Your task to perform on an android device: open app "PlayWell" (install if not already installed), go to login, and select forgot password Image 0: 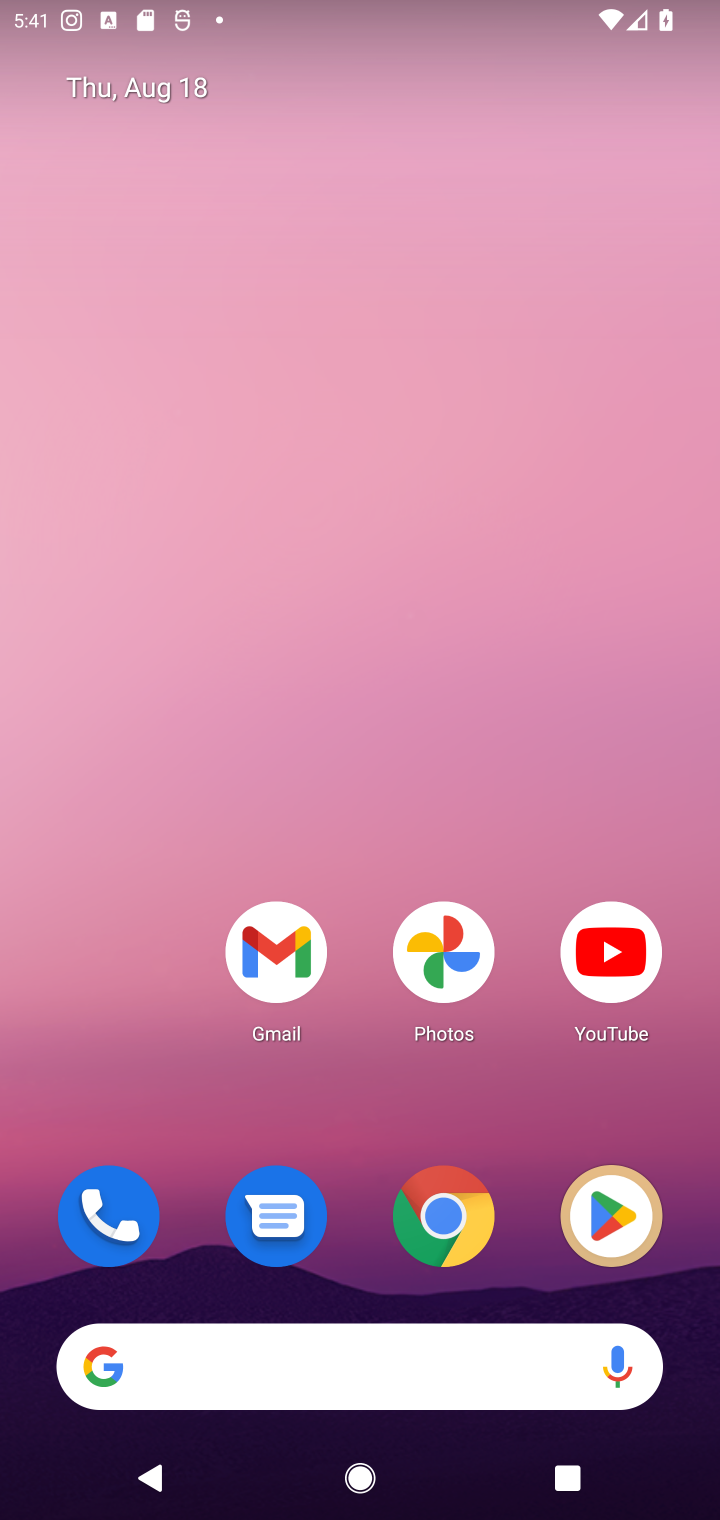
Step 0: click (580, 1216)
Your task to perform on an android device: open app "PlayWell" (install if not already installed), go to login, and select forgot password Image 1: 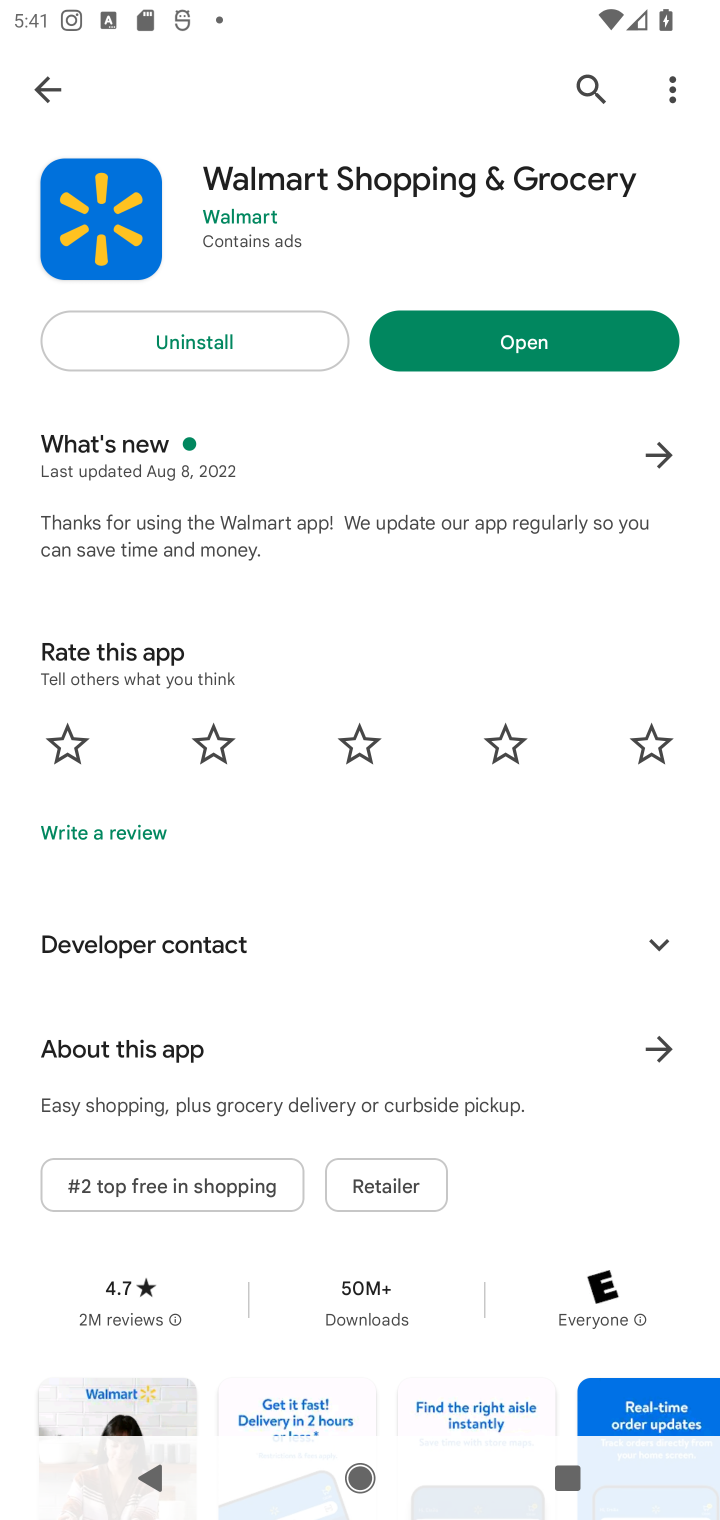
Step 1: click (587, 81)
Your task to perform on an android device: open app "PlayWell" (install if not already installed), go to login, and select forgot password Image 2: 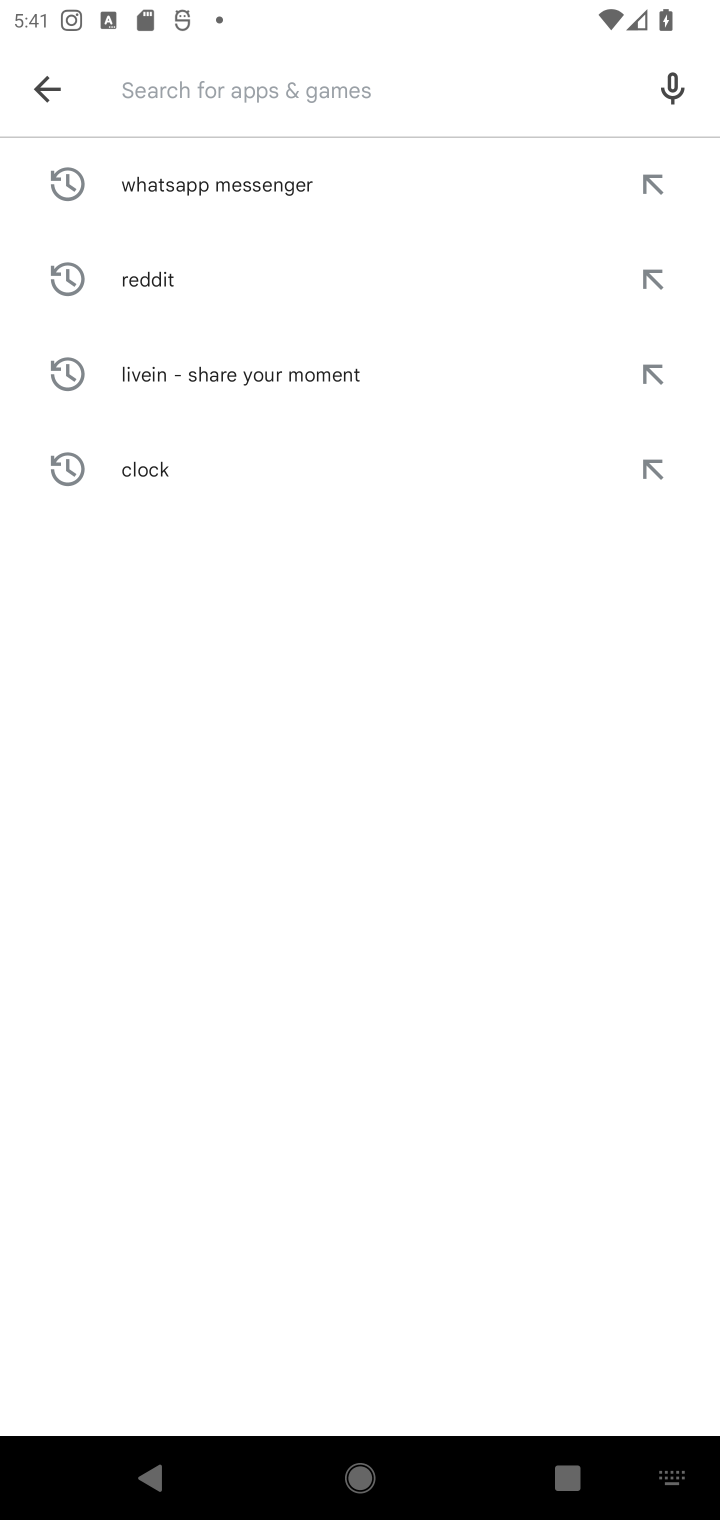
Step 2: click (556, 83)
Your task to perform on an android device: open app "PlayWell" (install if not already installed), go to login, and select forgot password Image 3: 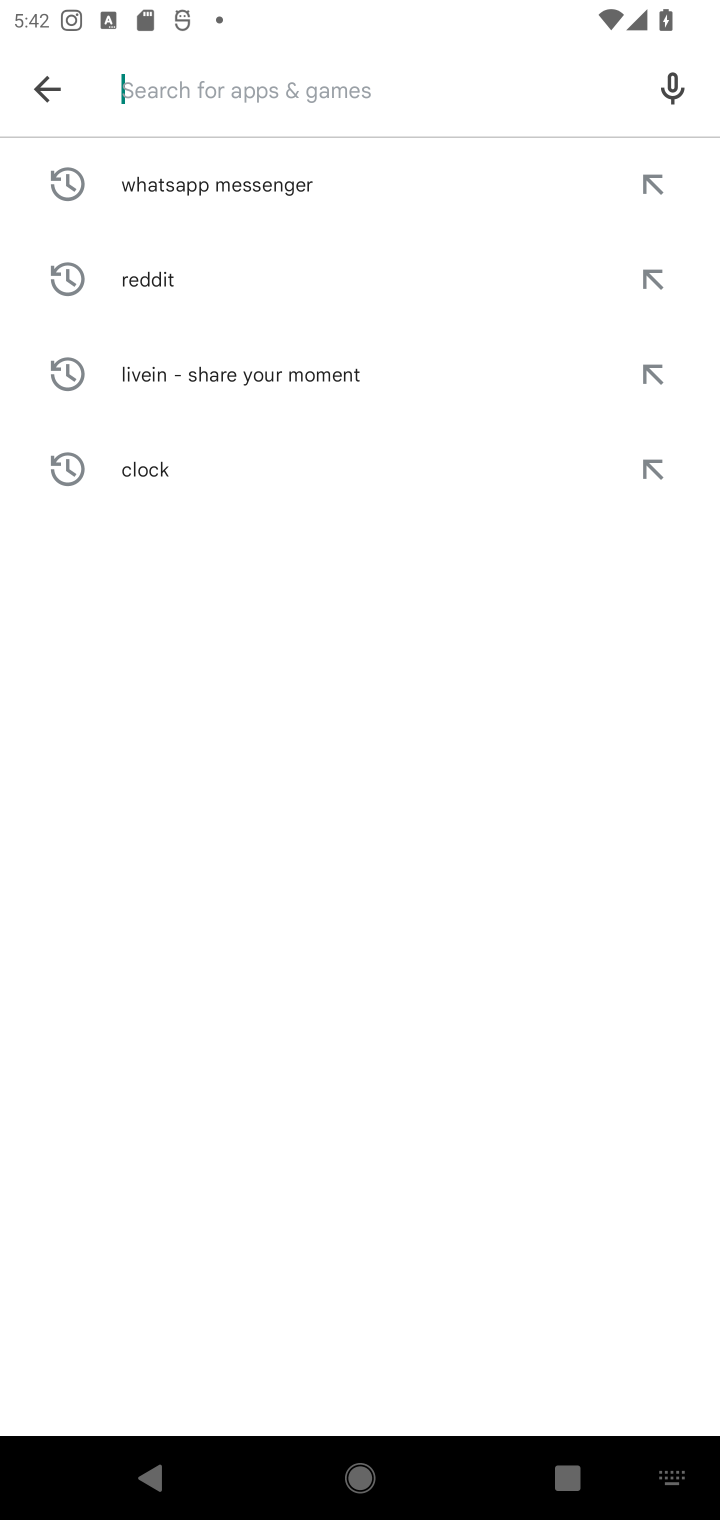
Step 3: type "PlayWell"
Your task to perform on an android device: open app "PlayWell" (install if not already installed), go to login, and select forgot password Image 4: 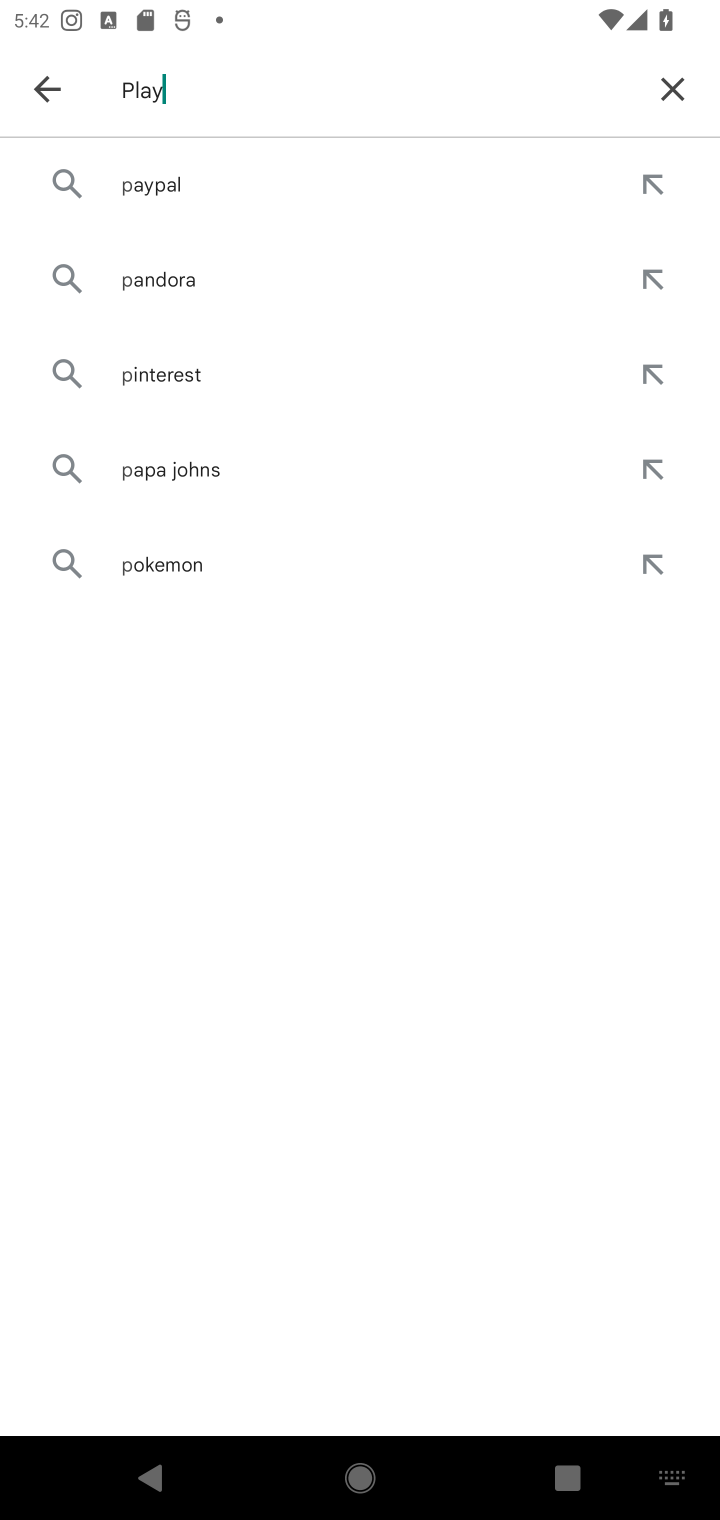
Step 4: type ""
Your task to perform on an android device: open app "PlayWell" (install if not already installed), go to login, and select forgot password Image 5: 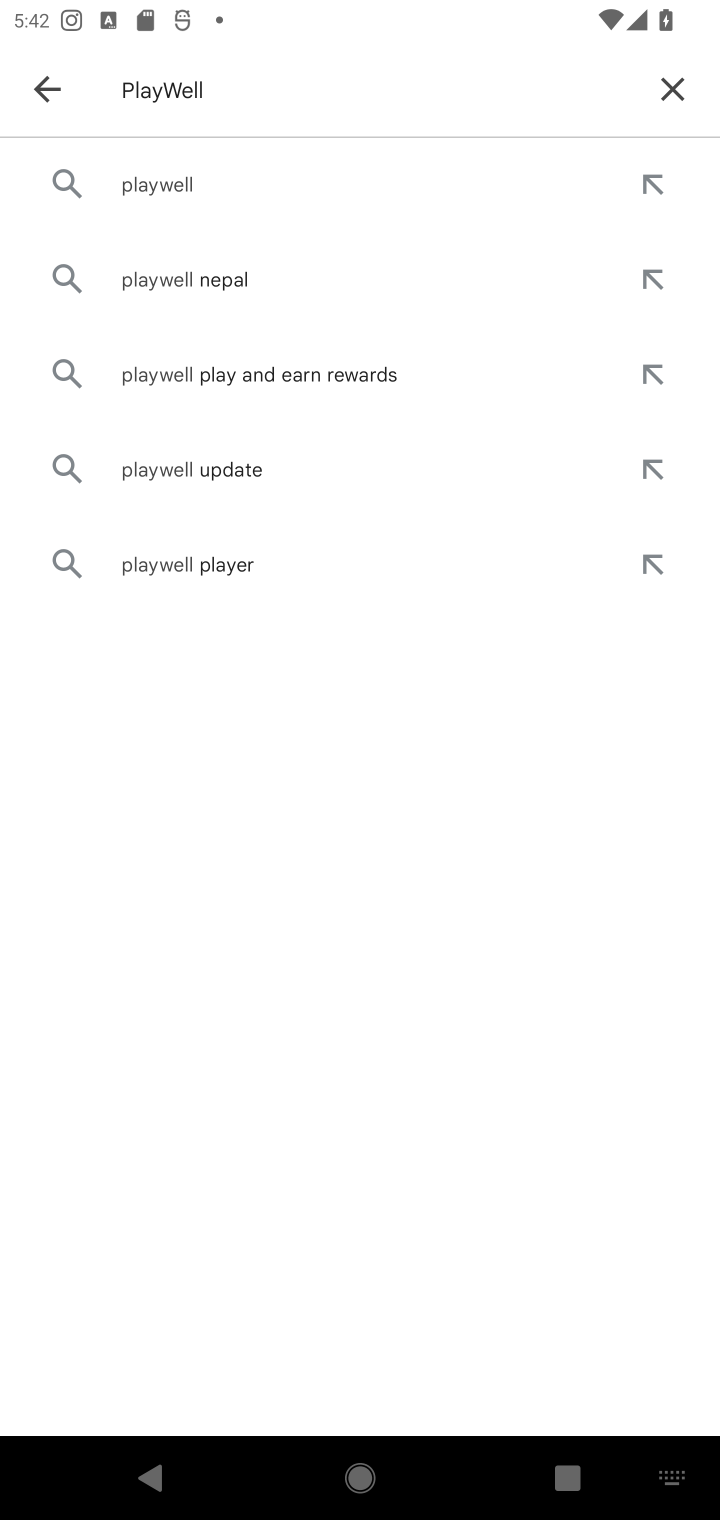
Step 5: click (217, 179)
Your task to perform on an android device: open app "PlayWell" (install if not already installed), go to login, and select forgot password Image 6: 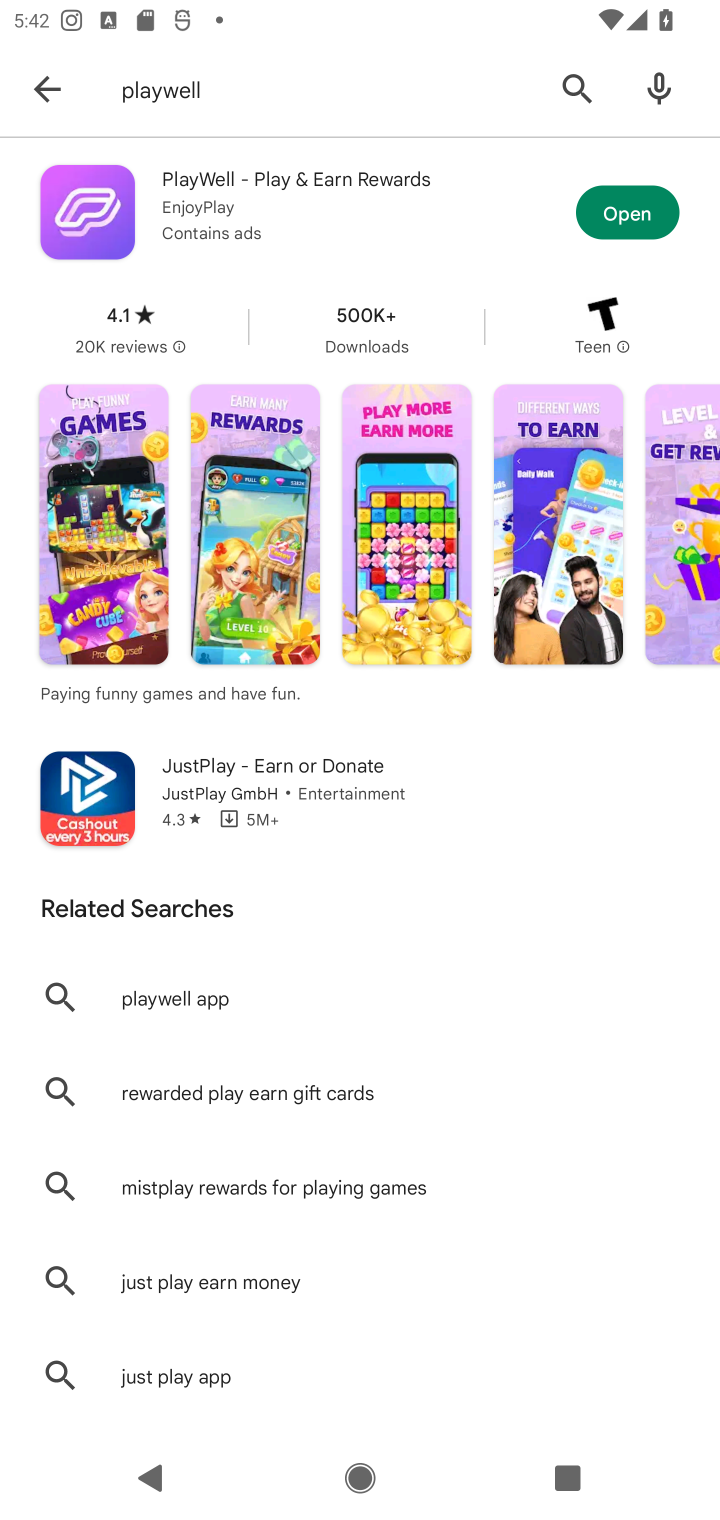
Step 6: click (645, 186)
Your task to perform on an android device: open app "PlayWell" (install if not already installed), go to login, and select forgot password Image 7: 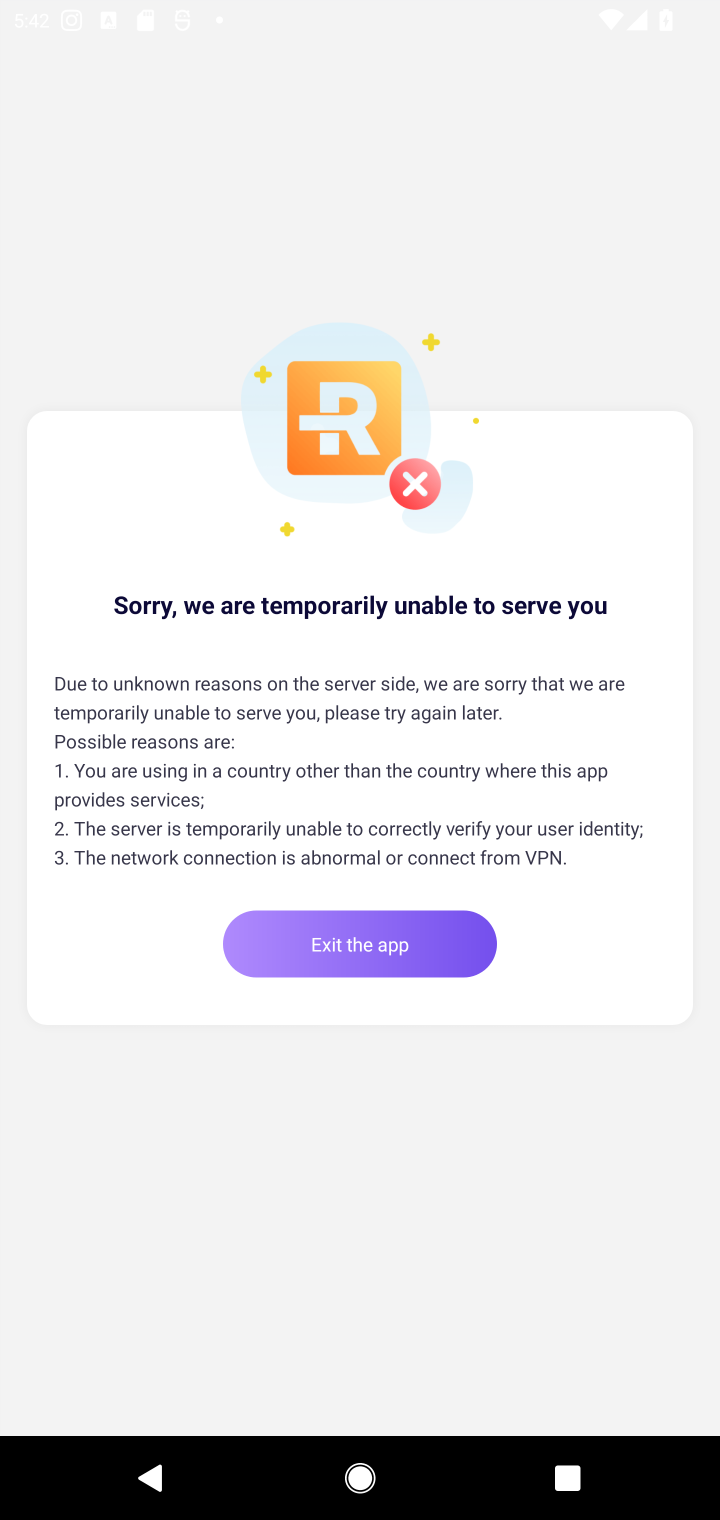
Step 7: task complete